Your task to perform on an android device: turn off notifications in google photos Image 0: 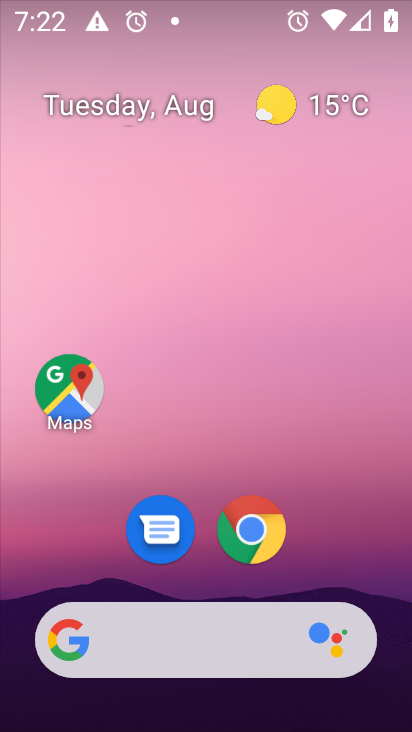
Step 0: press home button
Your task to perform on an android device: turn off notifications in google photos Image 1: 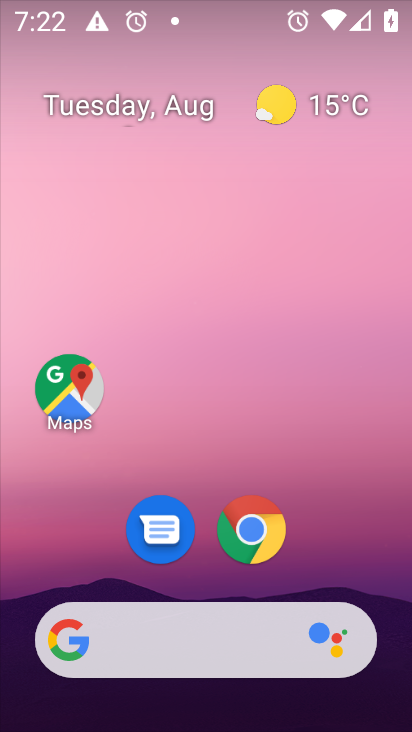
Step 1: drag from (212, 545) to (209, 4)
Your task to perform on an android device: turn off notifications in google photos Image 2: 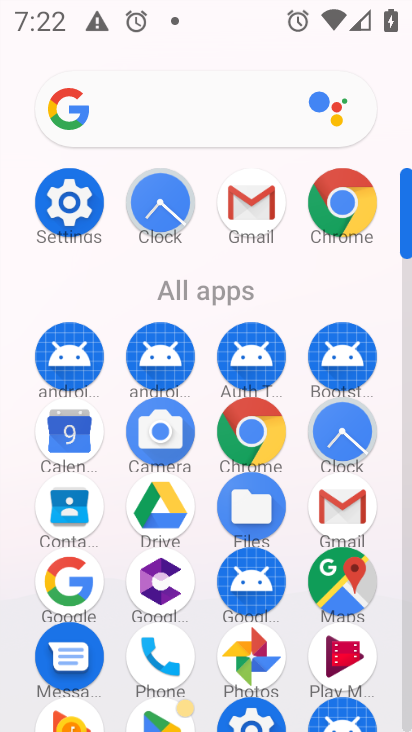
Step 2: click (243, 662)
Your task to perform on an android device: turn off notifications in google photos Image 3: 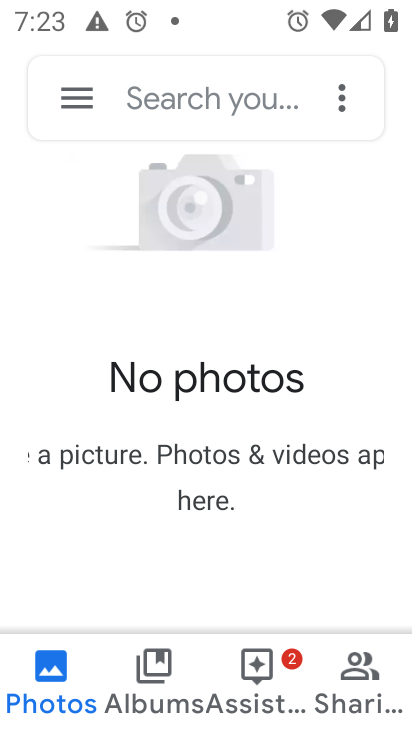
Step 3: click (335, 102)
Your task to perform on an android device: turn off notifications in google photos Image 4: 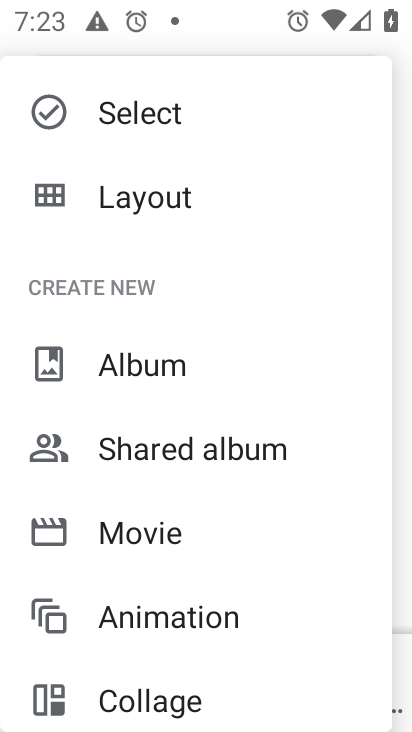
Step 4: drag from (312, 633) to (356, 41)
Your task to perform on an android device: turn off notifications in google photos Image 5: 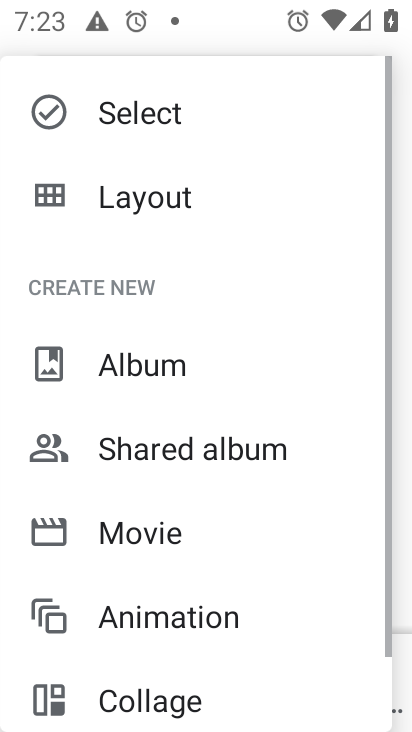
Step 5: click (402, 421)
Your task to perform on an android device: turn off notifications in google photos Image 6: 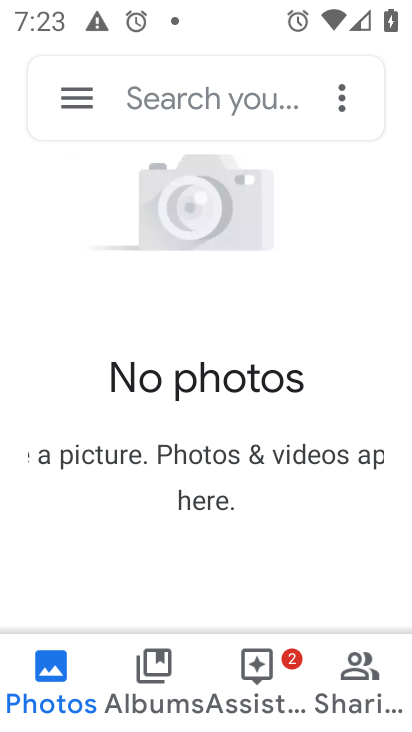
Step 6: click (65, 91)
Your task to perform on an android device: turn off notifications in google photos Image 7: 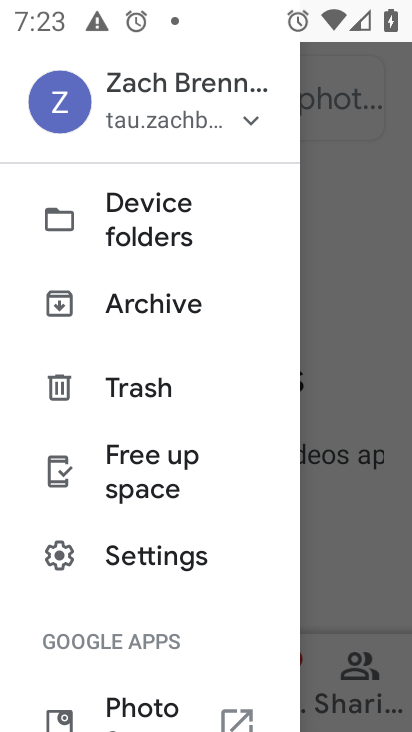
Step 7: click (146, 556)
Your task to perform on an android device: turn off notifications in google photos Image 8: 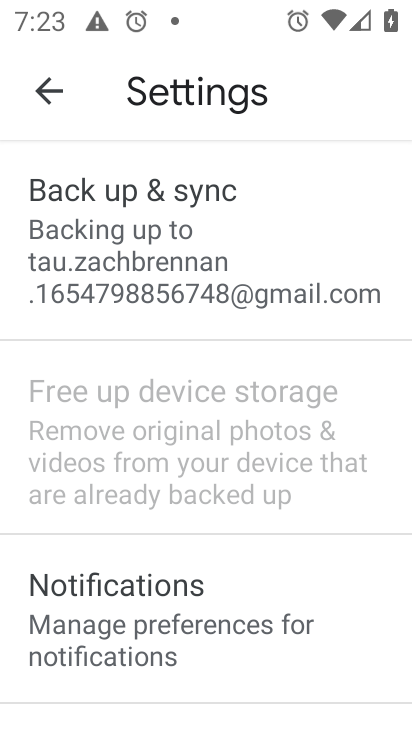
Step 8: click (111, 588)
Your task to perform on an android device: turn off notifications in google photos Image 9: 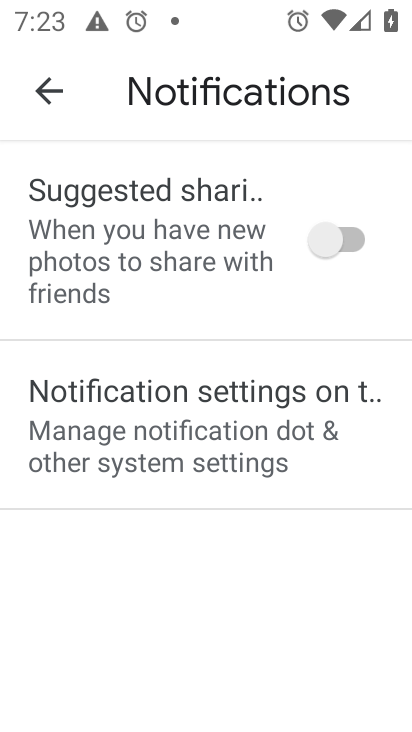
Step 9: task complete